Your task to perform on an android device: turn off location Image 0: 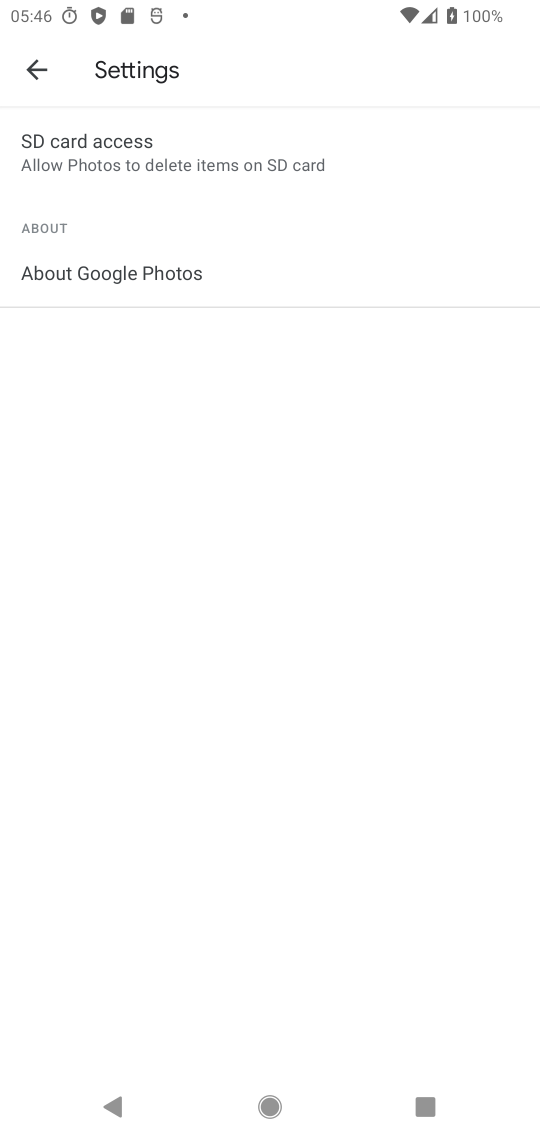
Step 0: press home button
Your task to perform on an android device: turn off location Image 1: 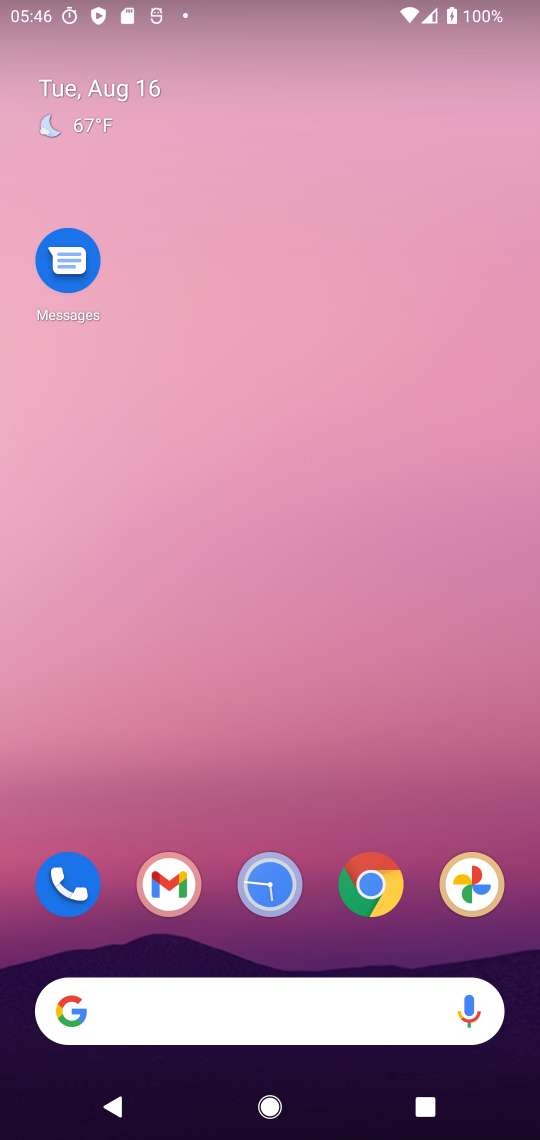
Step 1: drag from (38, 1087) to (316, 187)
Your task to perform on an android device: turn off location Image 2: 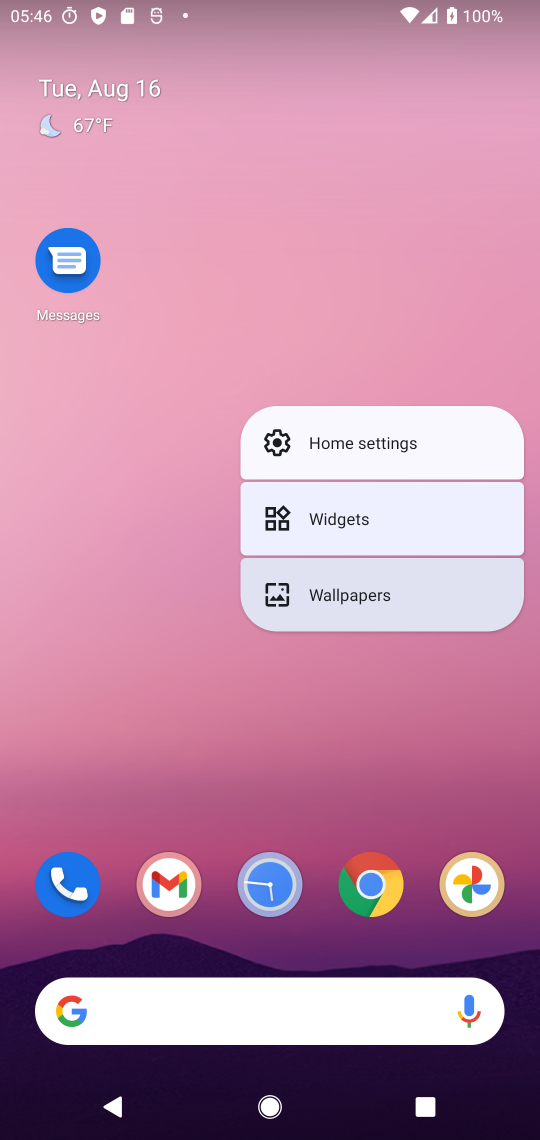
Step 2: drag from (92, 1076) to (227, 339)
Your task to perform on an android device: turn off location Image 3: 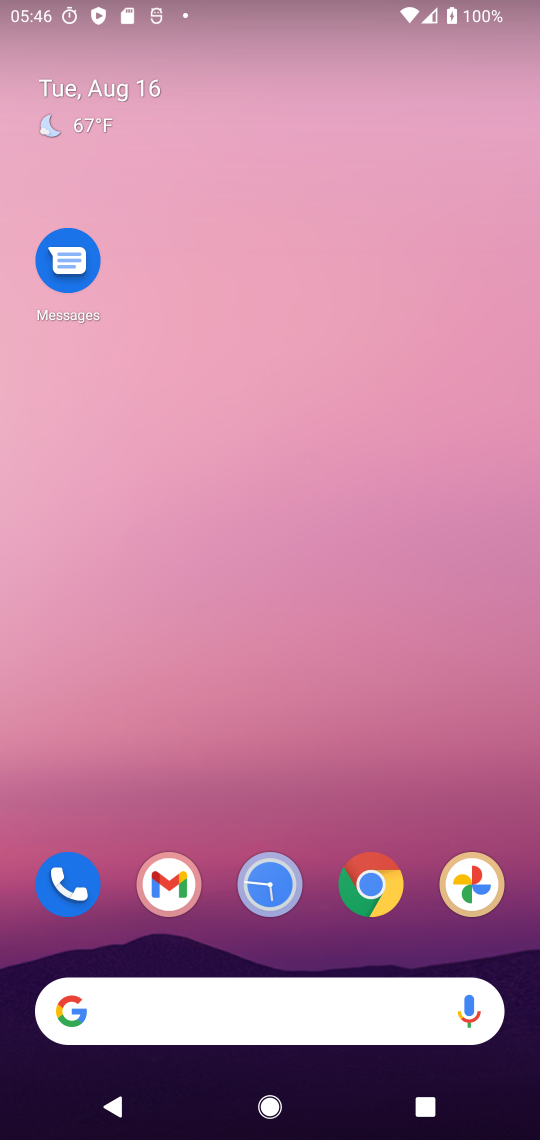
Step 3: drag from (42, 1072) to (243, 308)
Your task to perform on an android device: turn off location Image 4: 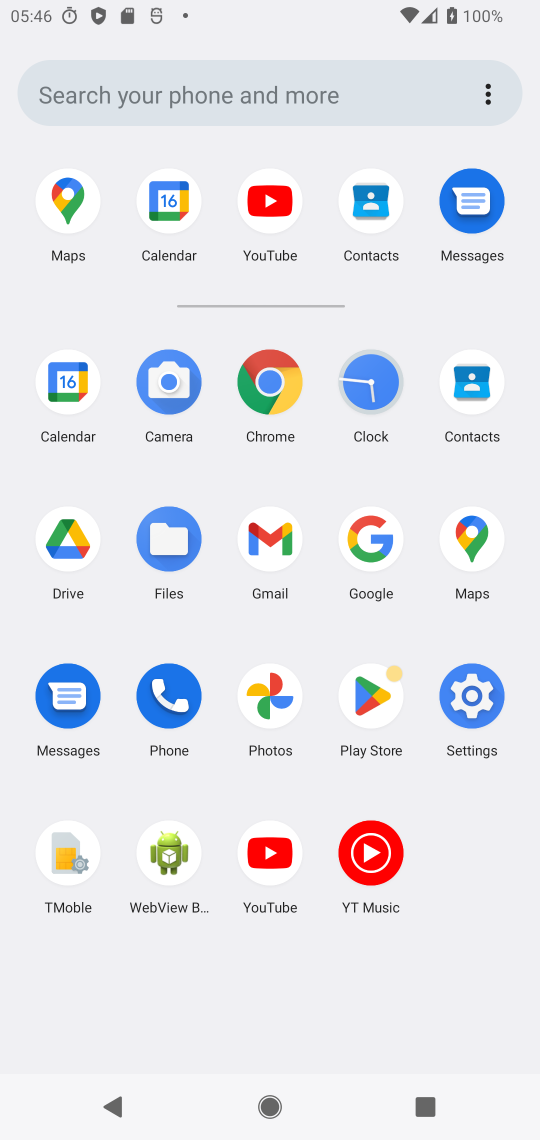
Step 4: click (480, 706)
Your task to perform on an android device: turn off location Image 5: 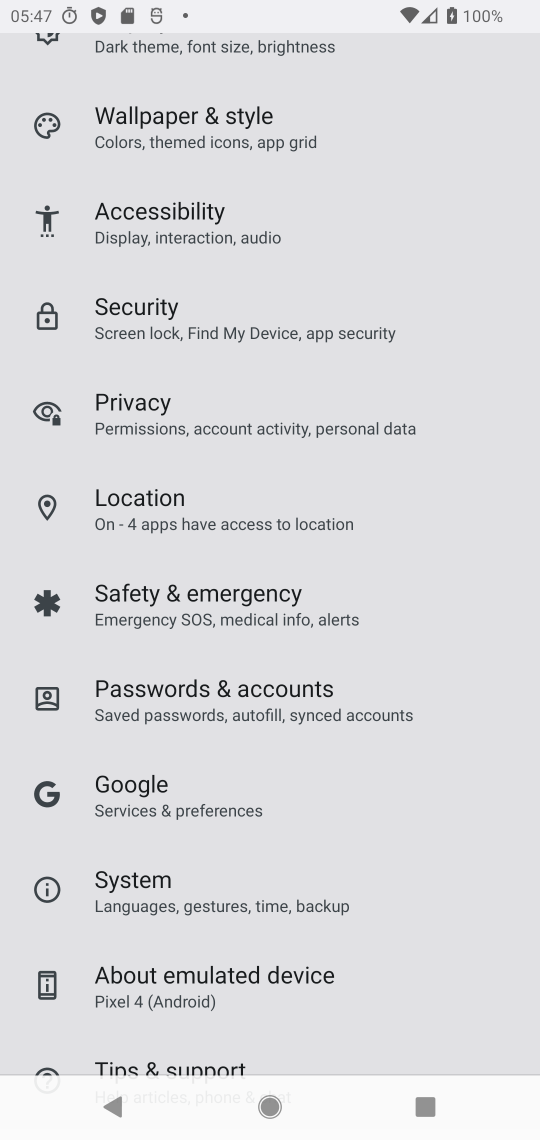
Step 5: drag from (445, 255) to (453, 583)
Your task to perform on an android device: turn off location Image 6: 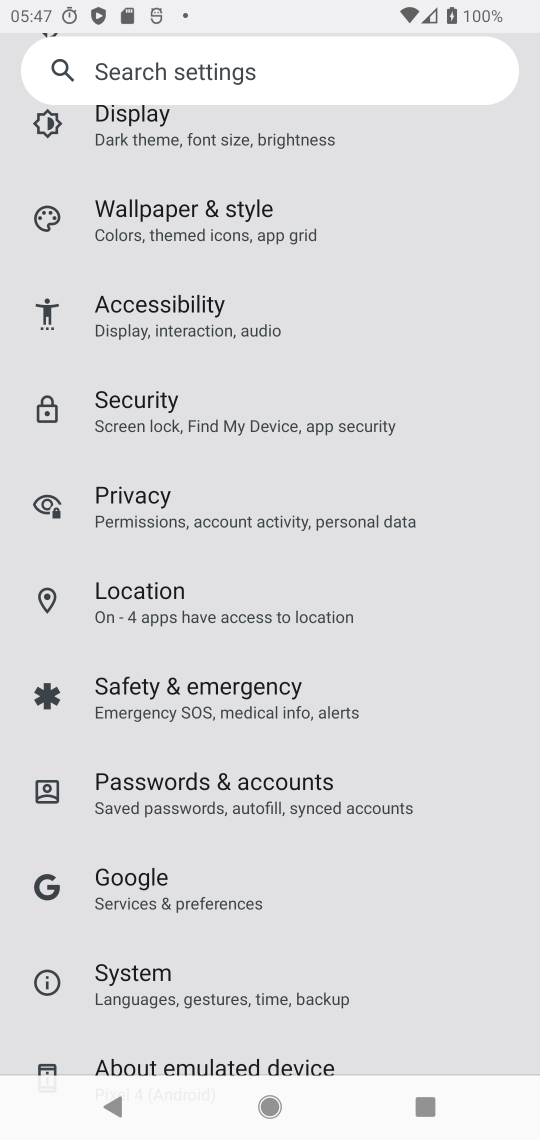
Step 6: click (141, 583)
Your task to perform on an android device: turn off location Image 7: 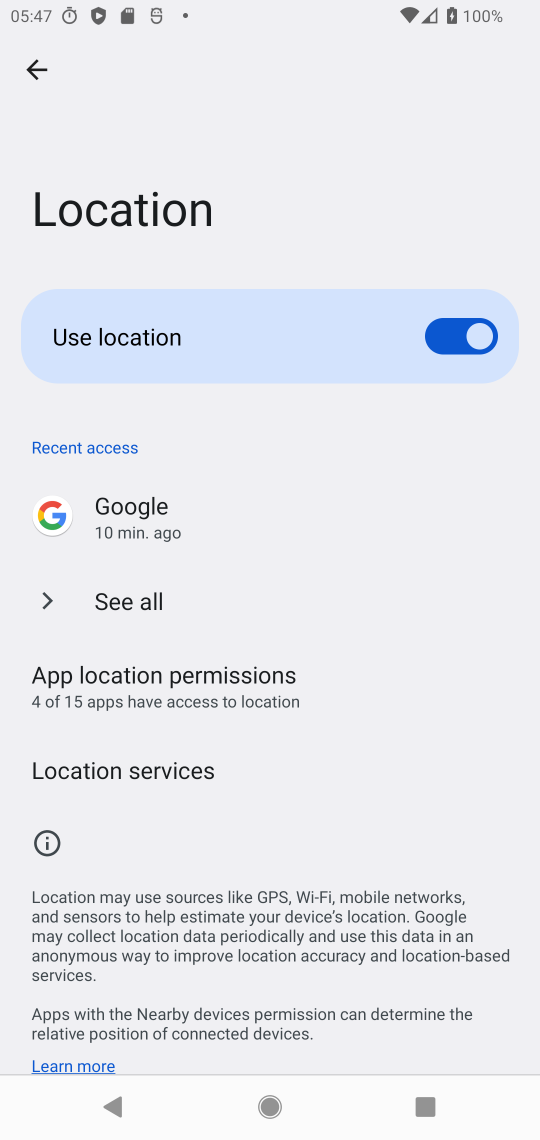
Step 7: task complete